Your task to perform on an android device: toggle improve location accuracy Image 0: 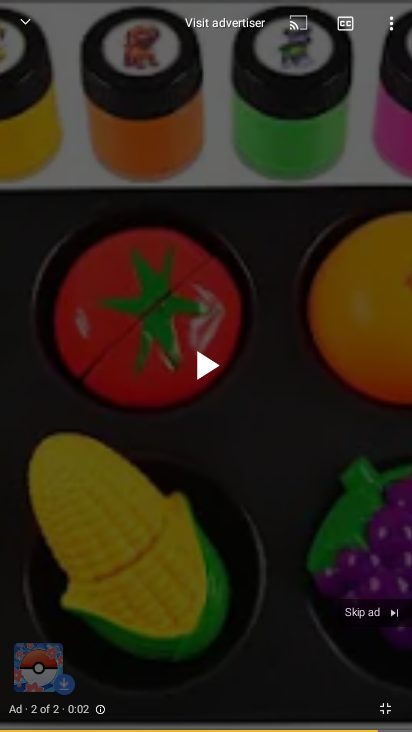
Step 0: press home button
Your task to perform on an android device: toggle improve location accuracy Image 1: 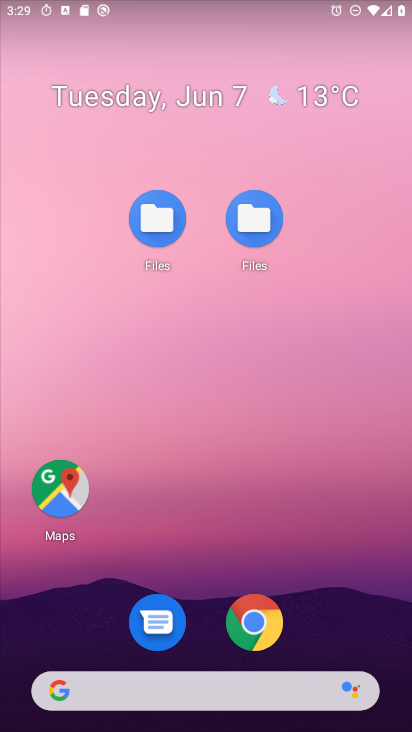
Step 1: drag from (315, 621) to (158, 124)
Your task to perform on an android device: toggle improve location accuracy Image 2: 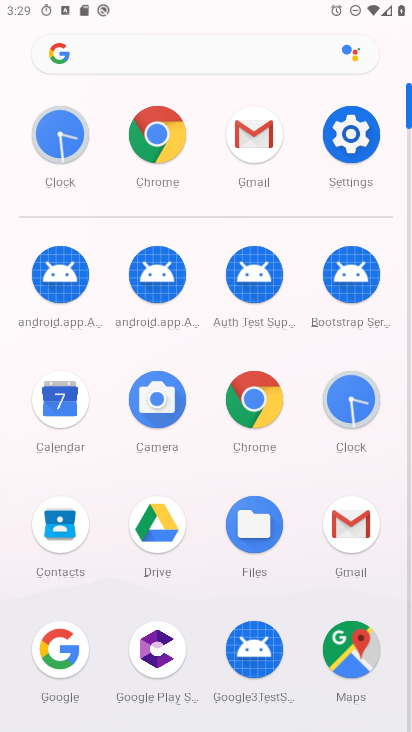
Step 2: click (356, 131)
Your task to perform on an android device: toggle improve location accuracy Image 3: 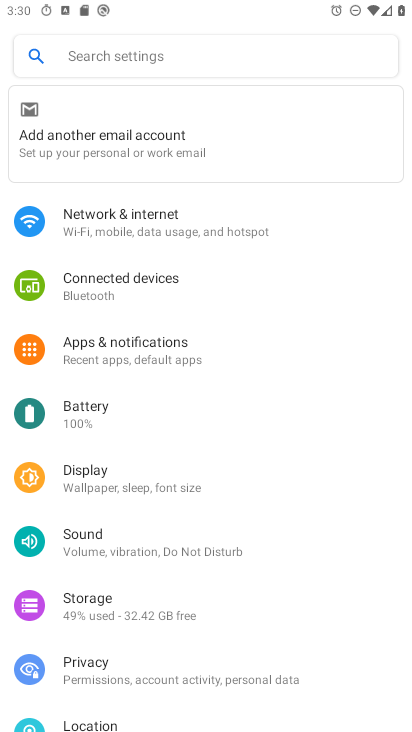
Step 3: click (107, 718)
Your task to perform on an android device: toggle improve location accuracy Image 4: 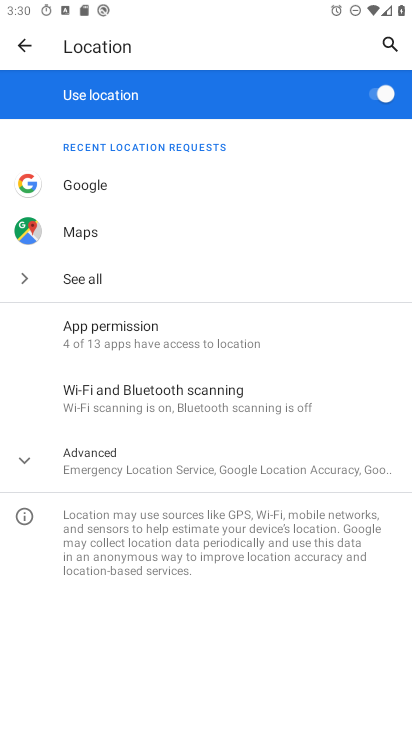
Step 4: click (217, 460)
Your task to perform on an android device: toggle improve location accuracy Image 5: 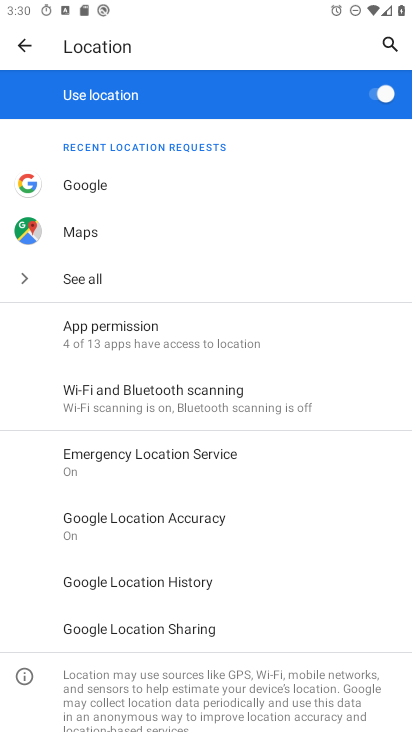
Step 5: click (169, 517)
Your task to perform on an android device: toggle improve location accuracy Image 6: 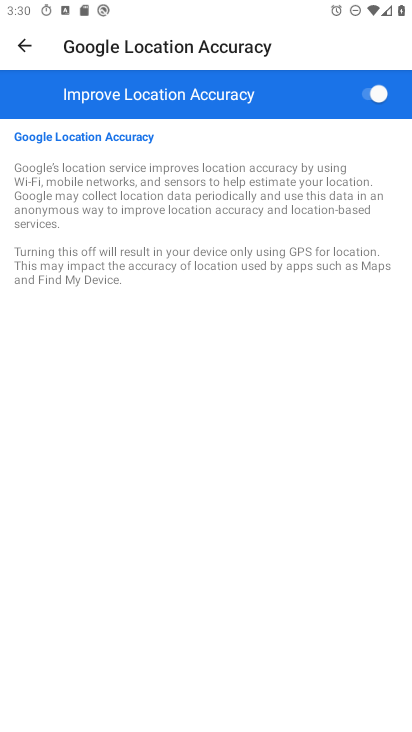
Step 6: click (367, 94)
Your task to perform on an android device: toggle improve location accuracy Image 7: 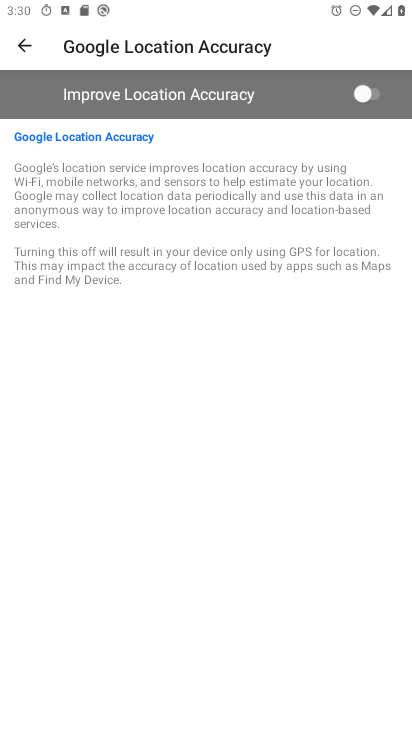
Step 7: task complete